Your task to perform on an android device: choose inbox layout in the gmail app Image 0: 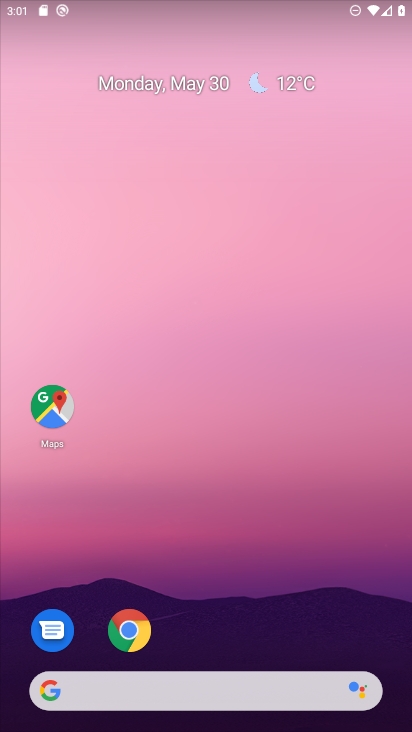
Step 0: drag from (179, 672) to (164, 142)
Your task to perform on an android device: choose inbox layout in the gmail app Image 1: 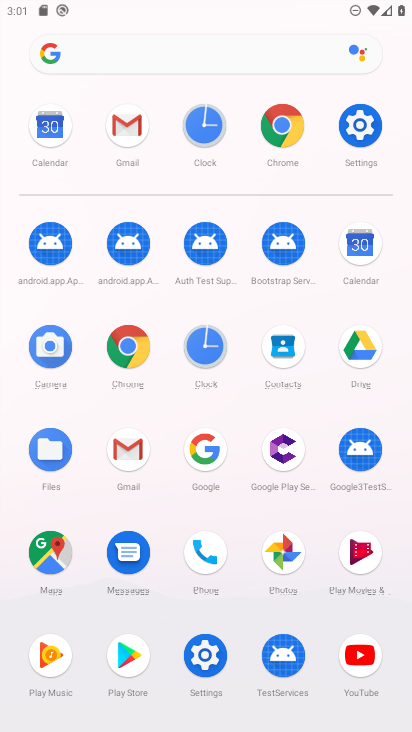
Step 1: click (129, 456)
Your task to perform on an android device: choose inbox layout in the gmail app Image 2: 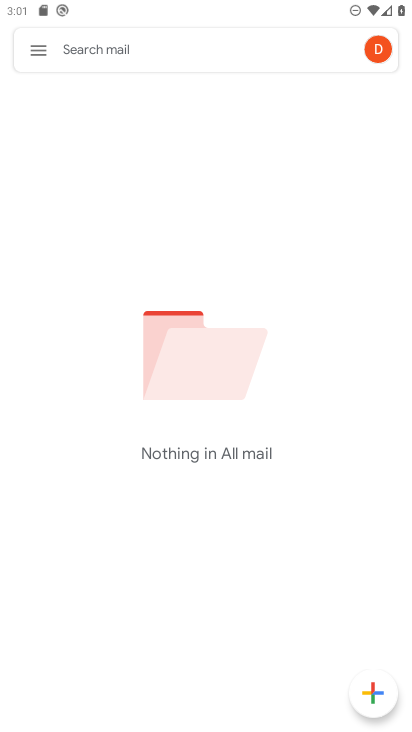
Step 2: click (28, 54)
Your task to perform on an android device: choose inbox layout in the gmail app Image 3: 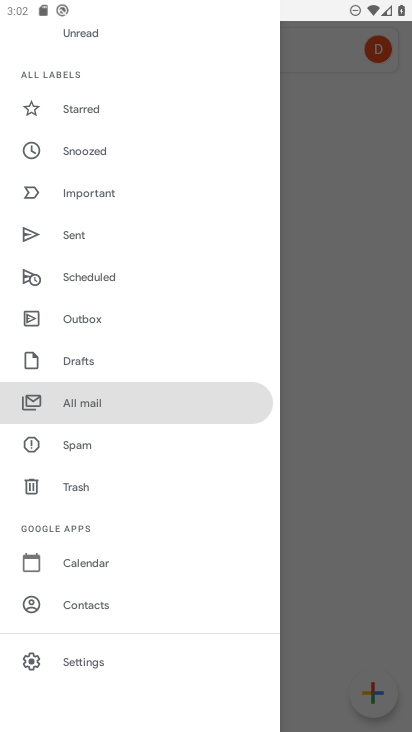
Step 3: click (93, 656)
Your task to perform on an android device: choose inbox layout in the gmail app Image 4: 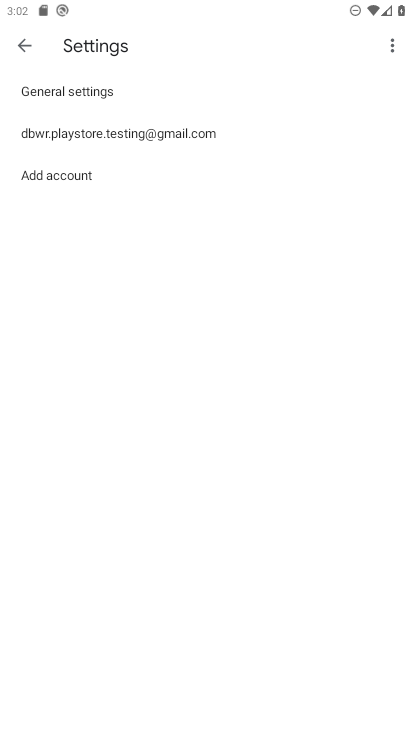
Step 4: click (158, 127)
Your task to perform on an android device: choose inbox layout in the gmail app Image 5: 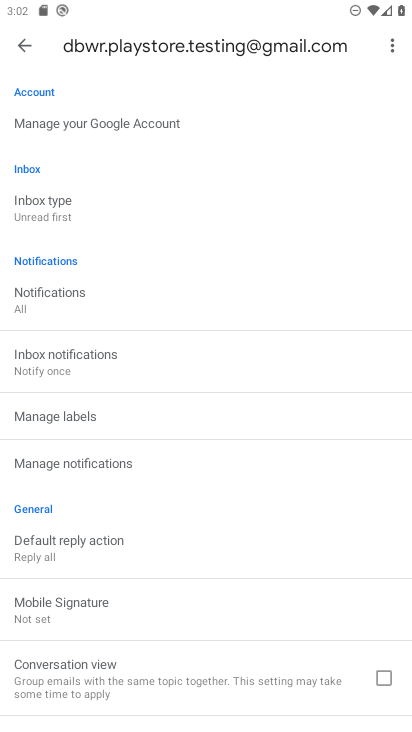
Step 5: click (104, 215)
Your task to perform on an android device: choose inbox layout in the gmail app Image 6: 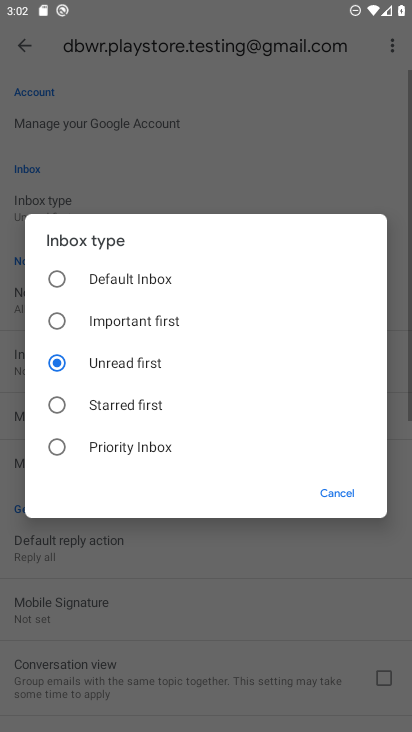
Step 6: click (112, 442)
Your task to perform on an android device: choose inbox layout in the gmail app Image 7: 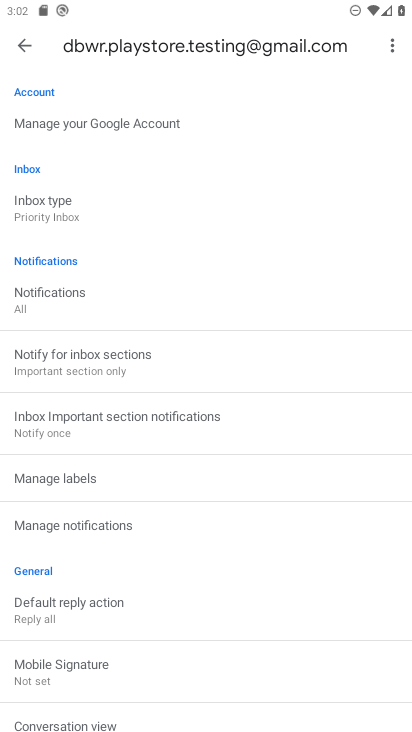
Step 7: task complete